Your task to perform on an android device: What's a good restaurant in San Jose? Image 0: 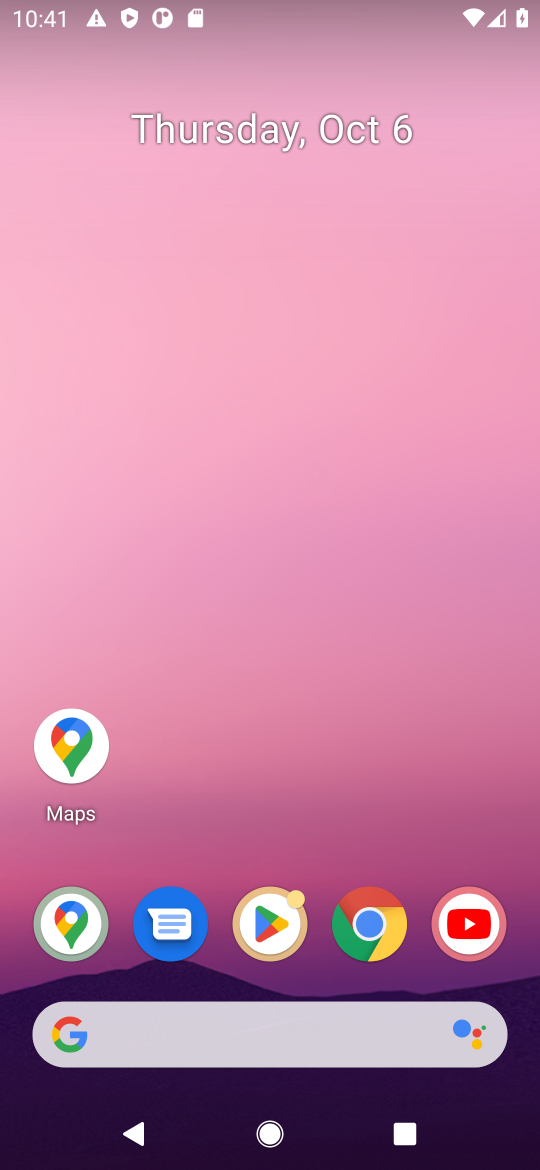
Step 0: click (80, 754)
Your task to perform on an android device: What's a good restaurant in San Jose? Image 1: 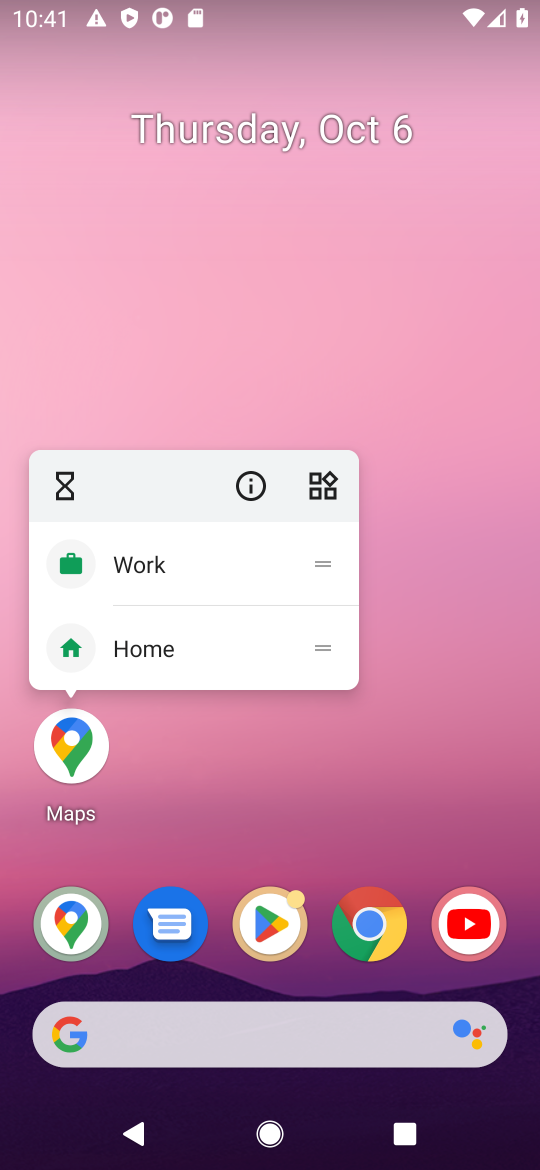
Step 1: click (78, 733)
Your task to perform on an android device: What's a good restaurant in San Jose? Image 2: 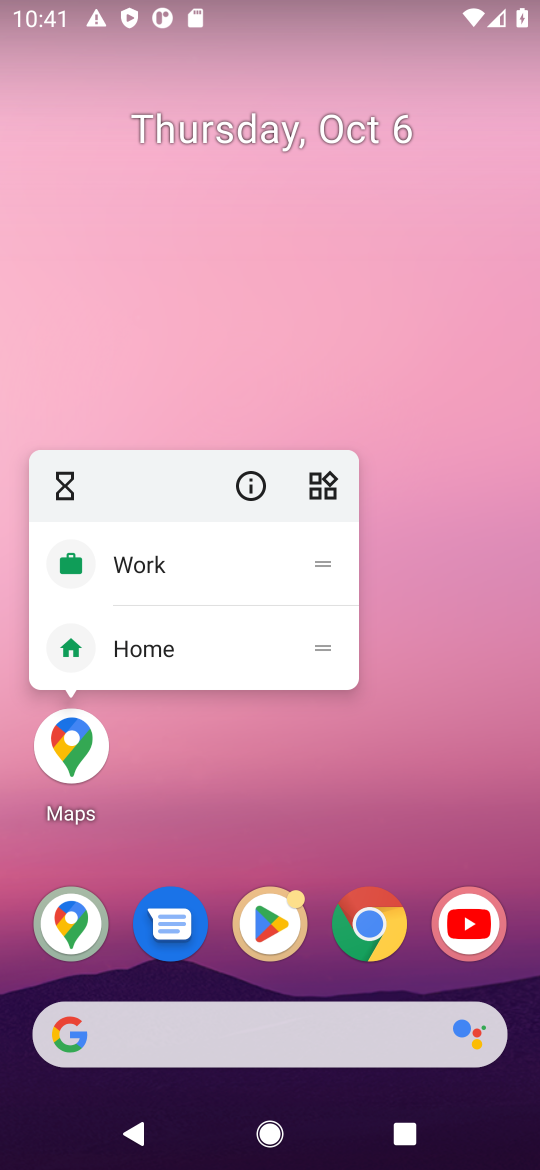
Step 2: click (68, 746)
Your task to perform on an android device: What's a good restaurant in San Jose? Image 3: 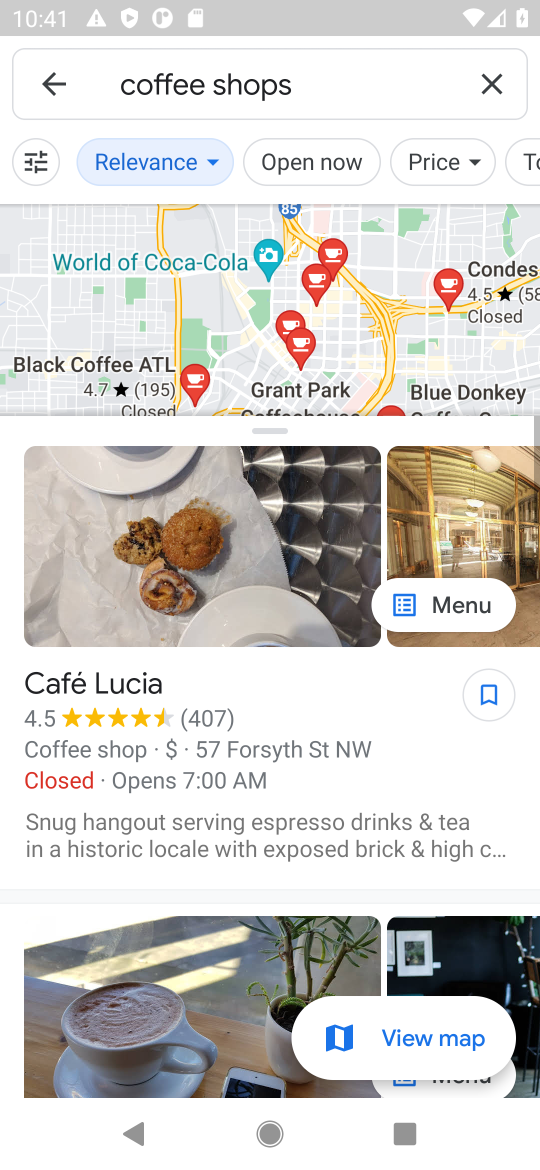
Step 3: click (486, 83)
Your task to perform on an android device: What's a good restaurant in San Jose? Image 4: 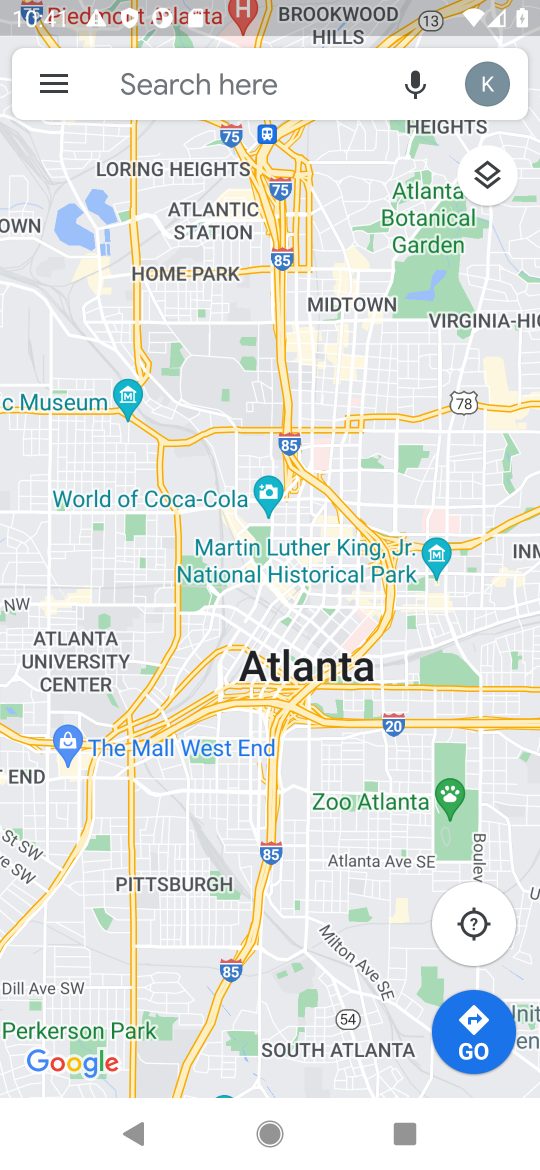
Step 4: click (221, 75)
Your task to perform on an android device: What's a good restaurant in San Jose? Image 5: 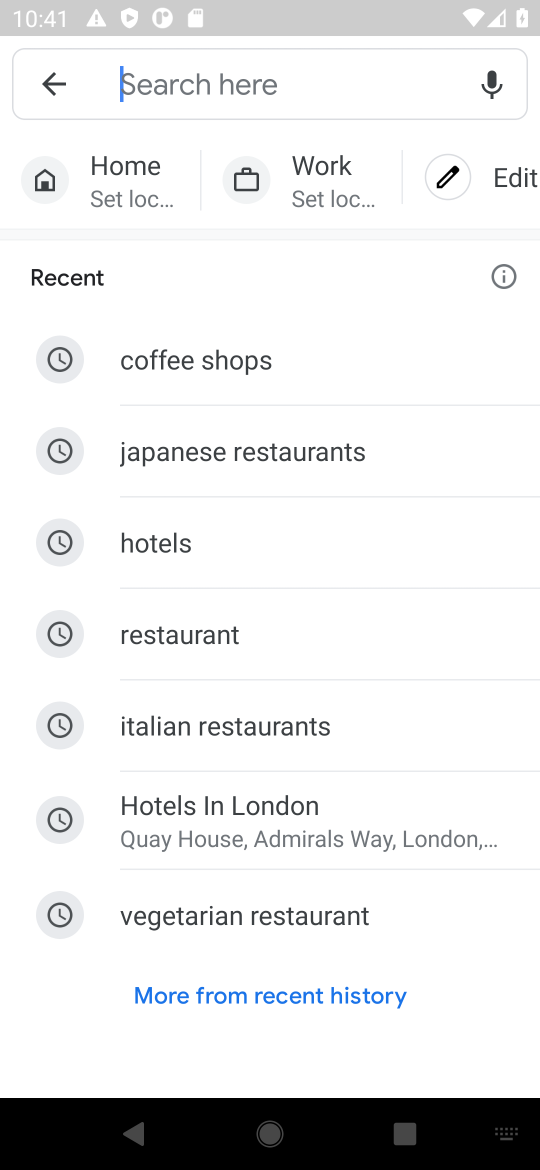
Step 5: type "restaurant in San Jose"
Your task to perform on an android device: What's a good restaurant in San Jose? Image 6: 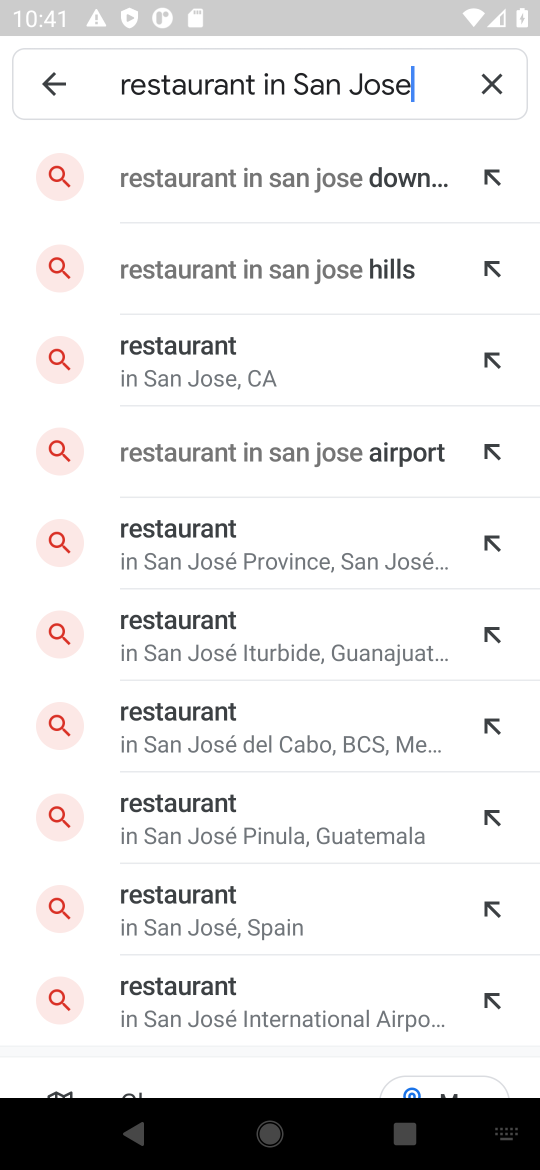
Step 6: click (199, 183)
Your task to perform on an android device: What's a good restaurant in San Jose? Image 7: 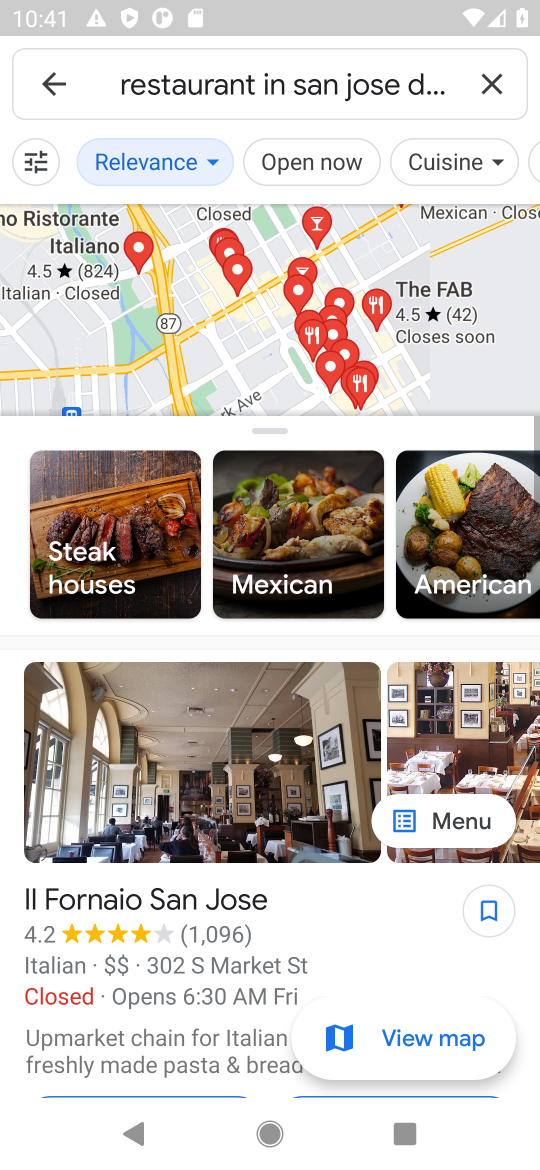
Step 7: task complete